Your task to perform on an android device: all mails in gmail Image 0: 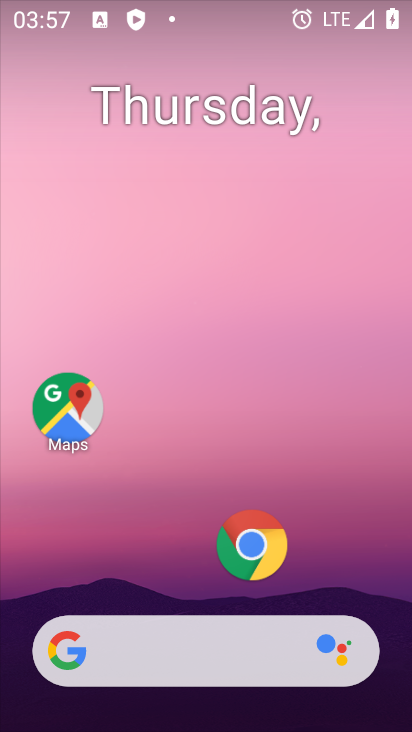
Step 0: drag from (216, 554) to (257, 36)
Your task to perform on an android device: all mails in gmail Image 1: 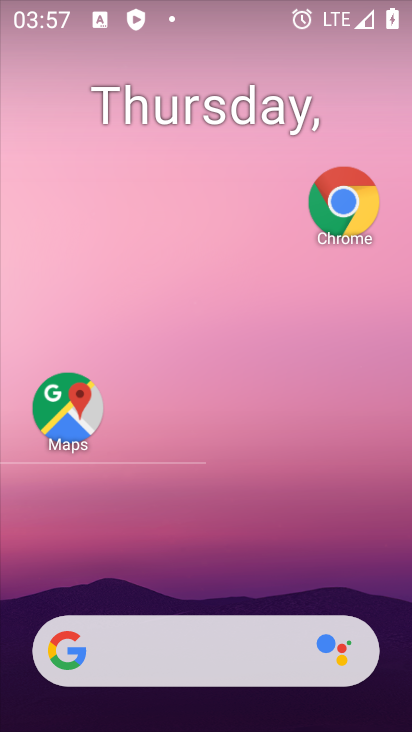
Step 1: click (307, 511)
Your task to perform on an android device: all mails in gmail Image 2: 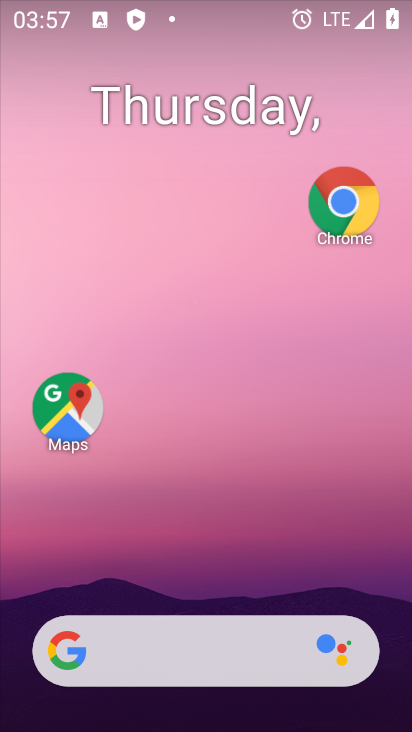
Step 2: drag from (272, 604) to (243, 18)
Your task to perform on an android device: all mails in gmail Image 3: 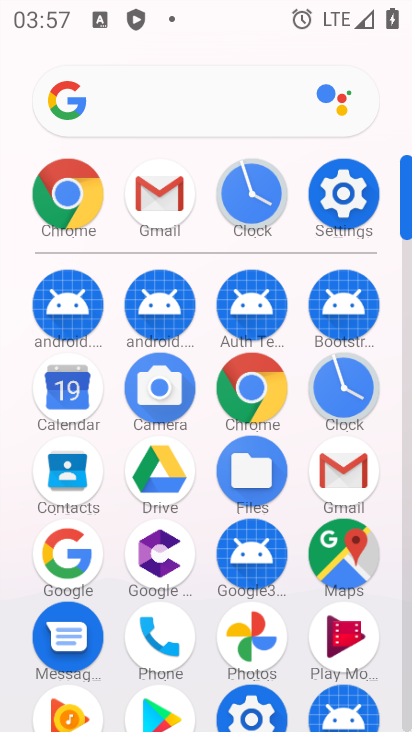
Step 3: click (339, 469)
Your task to perform on an android device: all mails in gmail Image 4: 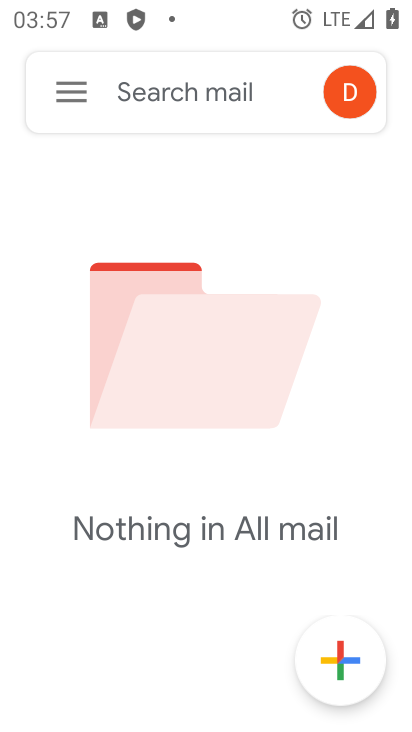
Step 4: click (83, 96)
Your task to perform on an android device: all mails in gmail Image 5: 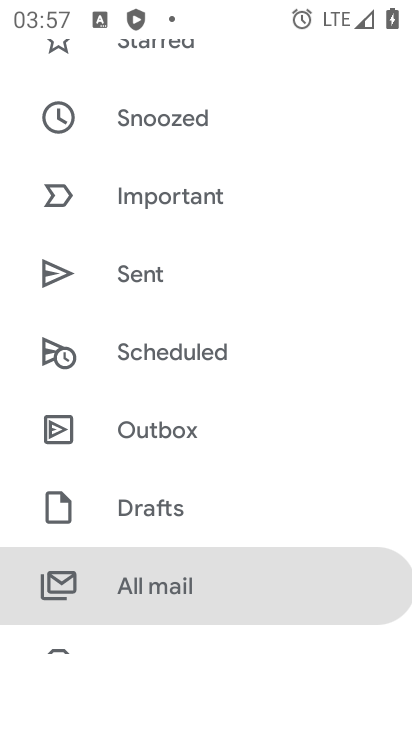
Step 5: click (172, 580)
Your task to perform on an android device: all mails in gmail Image 6: 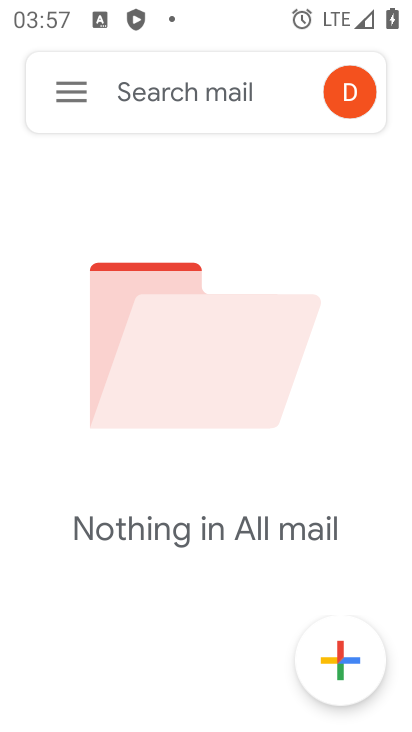
Step 6: task complete